Your task to perform on an android device: toggle show notifications on the lock screen Image 0: 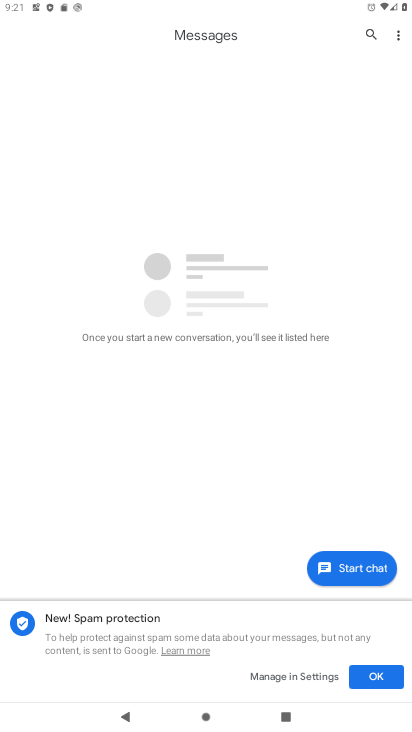
Step 0: press home button
Your task to perform on an android device: toggle show notifications on the lock screen Image 1: 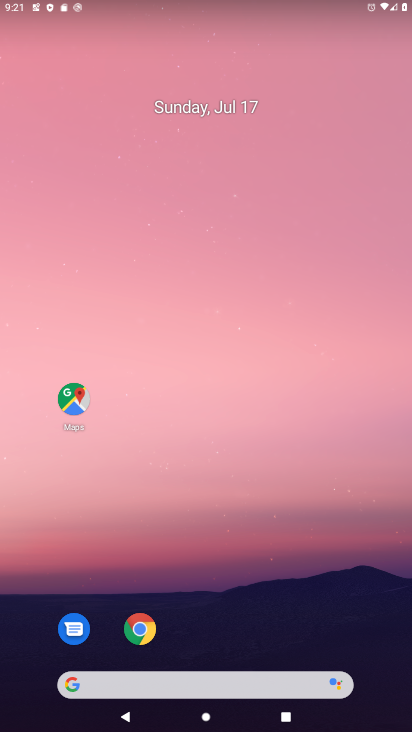
Step 1: drag from (210, 633) to (198, 16)
Your task to perform on an android device: toggle show notifications on the lock screen Image 2: 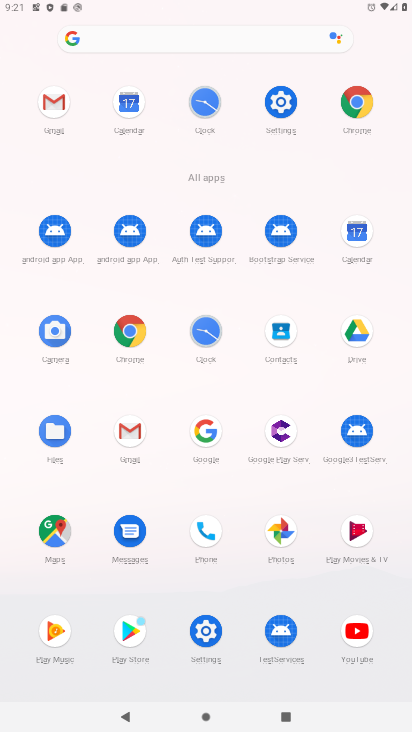
Step 2: click (198, 629)
Your task to perform on an android device: toggle show notifications on the lock screen Image 3: 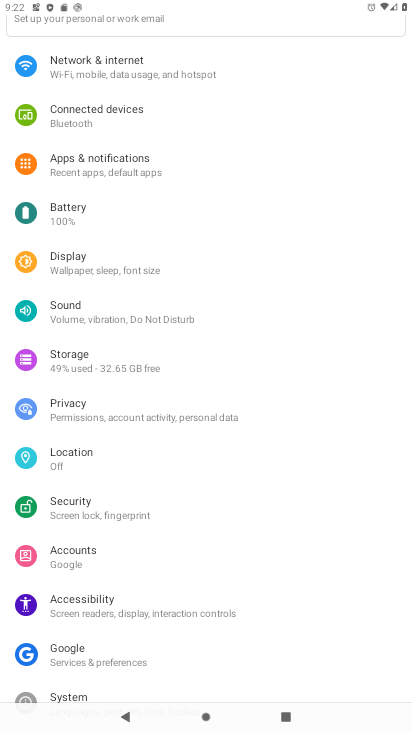
Step 3: click (133, 163)
Your task to perform on an android device: toggle show notifications on the lock screen Image 4: 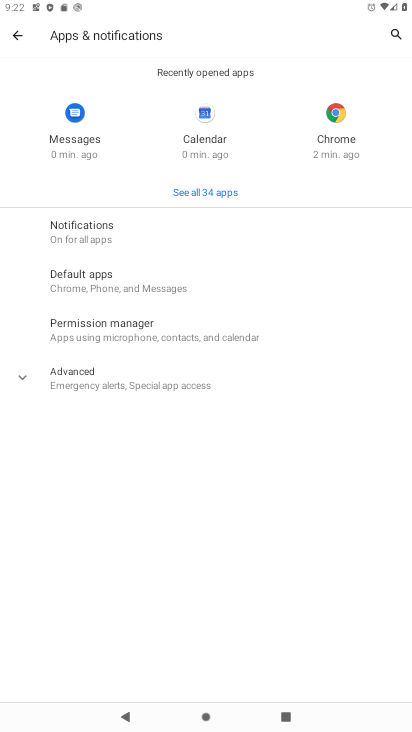
Step 4: click (103, 242)
Your task to perform on an android device: toggle show notifications on the lock screen Image 5: 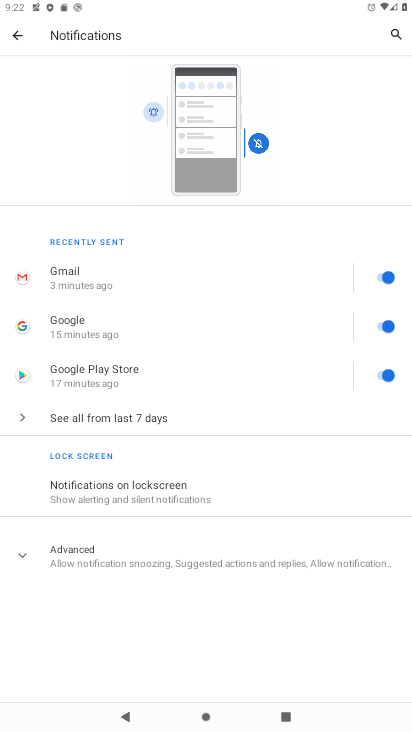
Step 5: click (168, 494)
Your task to perform on an android device: toggle show notifications on the lock screen Image 6: 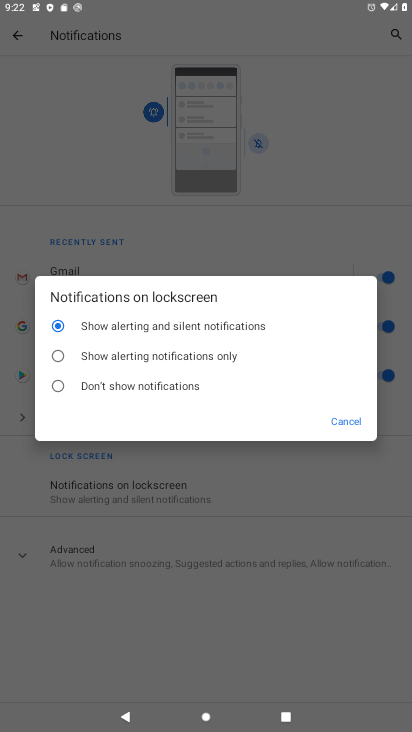
Step 6: click (67, 373)
Your task to perform on an android device: toggle show notifications on the lock screen Image 7: 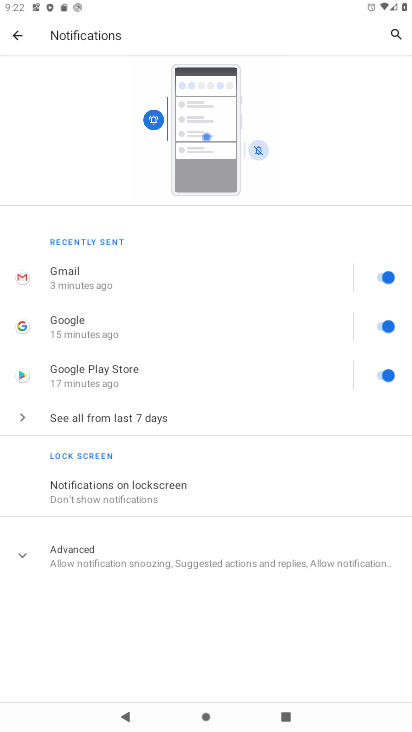
Step 7: task complete